Your task to perform on an android device: find snoozed emails in the gmail app Image 0: 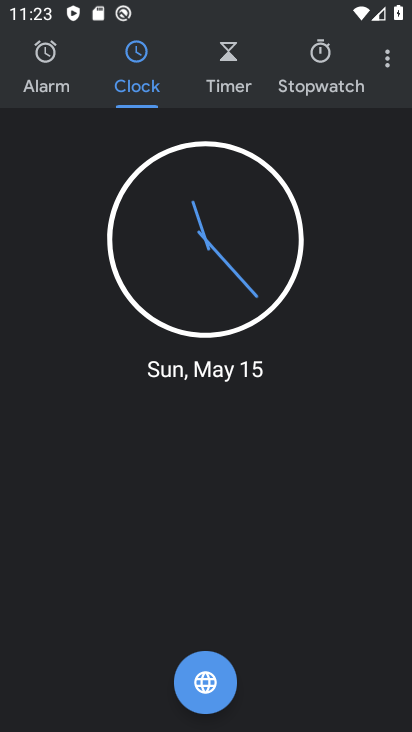
Step 0: press home button
Your task to perform on an android device: find snoozed emails in the gmail app Image 1: 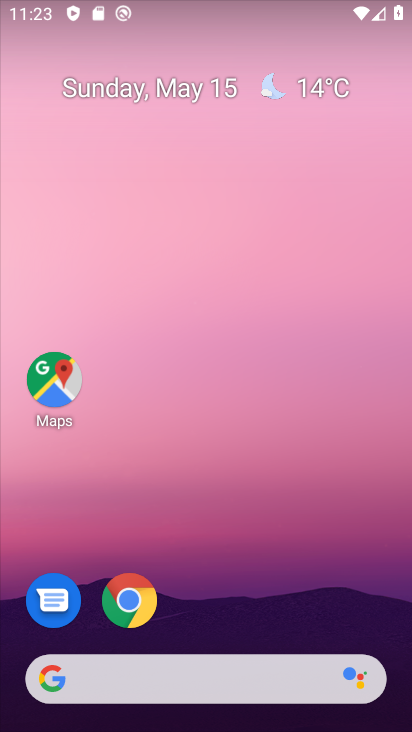
Step 1: drag from (389, 638) to (317, 8)
Your task to perform on an android device: find snoozed emails in the gmail app Image 2: 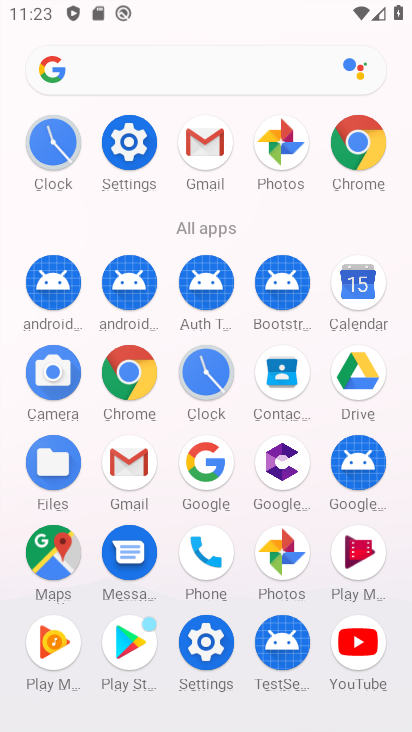
Step 2: click (127, 463)
Your task to perform on an android device: find snoozed emails in the gmail app Image 3: 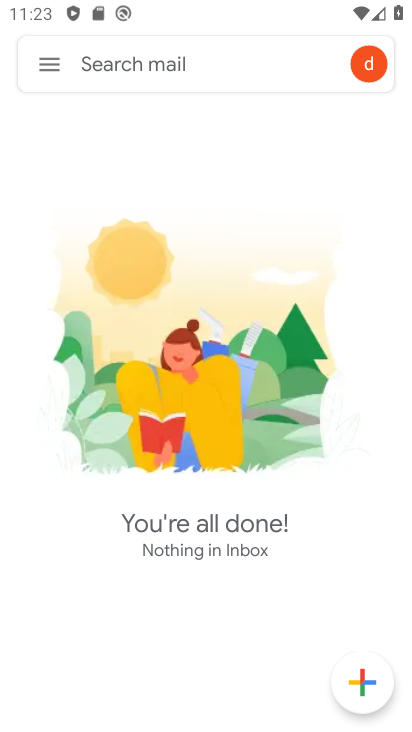
Step 3: click (49, 54)
Your task to perform on an android device: find snoozed emails in the gmail app Image 4: 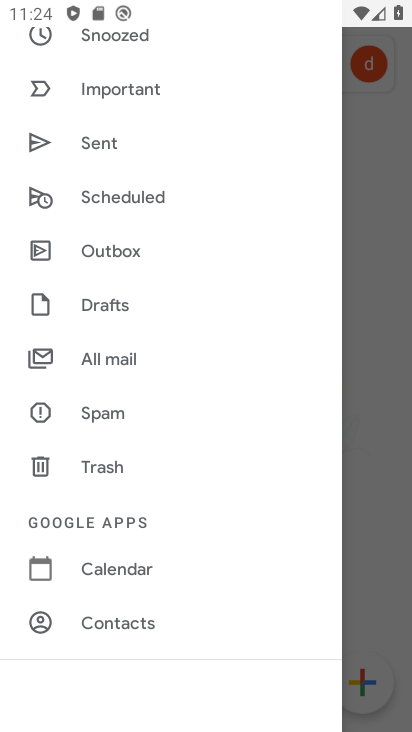
Step 4: drag from (211, 219) to (190, 517)
Your task to perform on an android device: find snoozed emails in the gmail app Image 5: 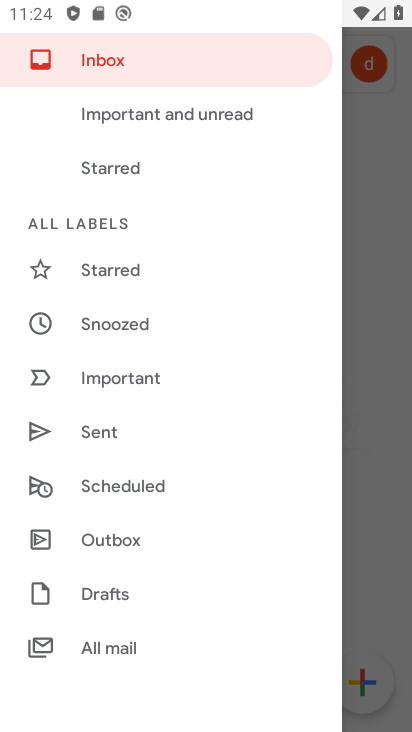
Step 5: click (102, 321)
Your task to perform on an android device: find snoozed emails in the gmail app Image 6: 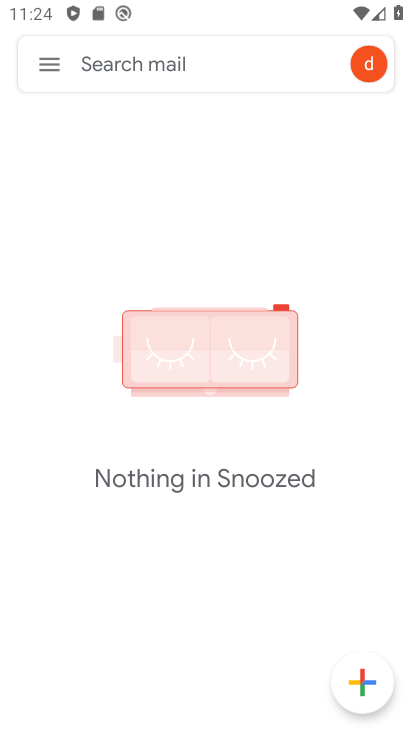
Step 6: task complete